Your task to perform on an android device: open app "Facebook Messenger" (install if not already installed) Image 0: 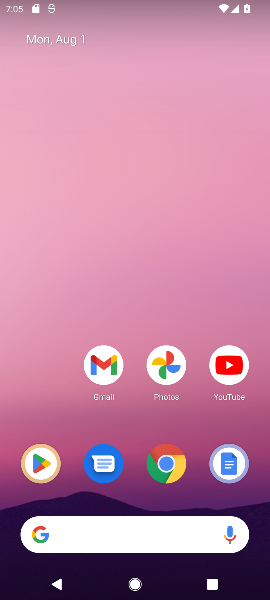
Step 0: click (54, 468)
Your task to perform on an android device: open app "Facebook Messenger" (install if not already installed) Image 1: 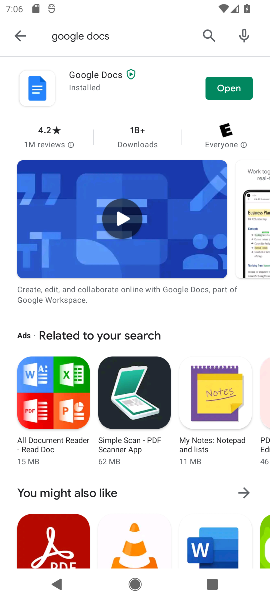
Step 1: click (45, 471)
Your task to perform on an android device: open app "Facebook Messenger" (install if not already installed) Image 2: 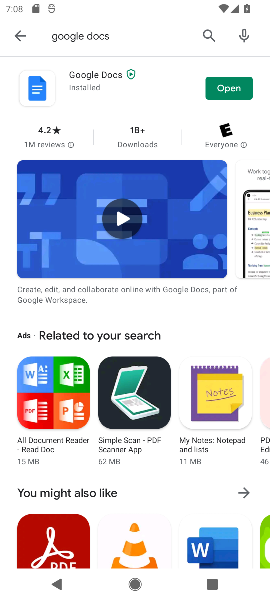
Step 2: click (223, 30)
Your task to perform on an android device: open app "Facebook Messenger" (install if not already installed) Image 3: 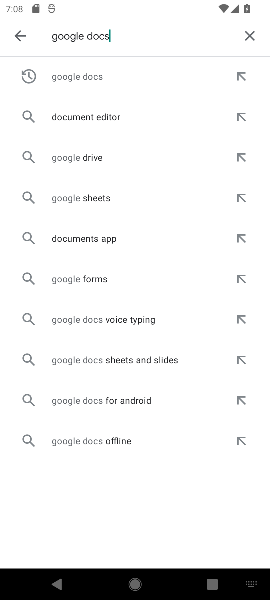
Step 3: click (255, 29)
Your task to perform on an android device: open app "Facebook Messenger" (install if not already installed) Image 4: 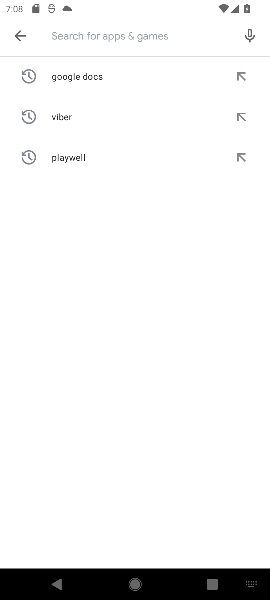
Step 4: type "facebook messanger"
Your task to perform on an android device: open app "Facebook Messenger" (install if not already installed) Image 5: 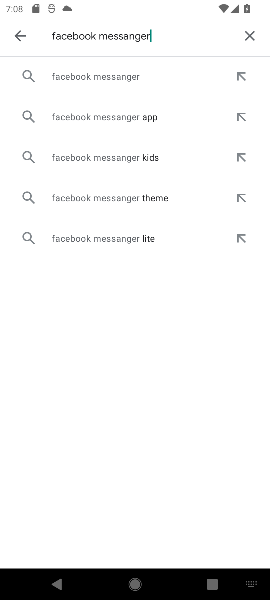
Step 5: click (142, 82)
Your task to perform on an android device: open app "Facebook Messenger" (install if not already installed) Image 6: 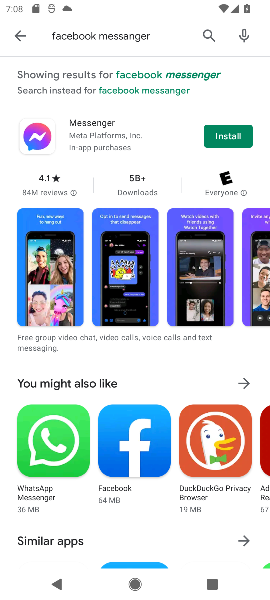
Step 6: click (234, 143)
Your task to perform on an android device: open app "Facebook Messenger" (install if not already installed) Image 7: 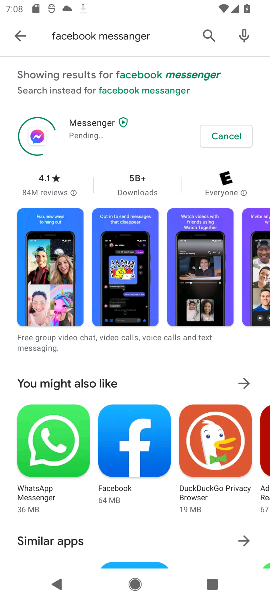
Step 7: task complete